Your task to perform on an android device: What is the recent news? Image 0: 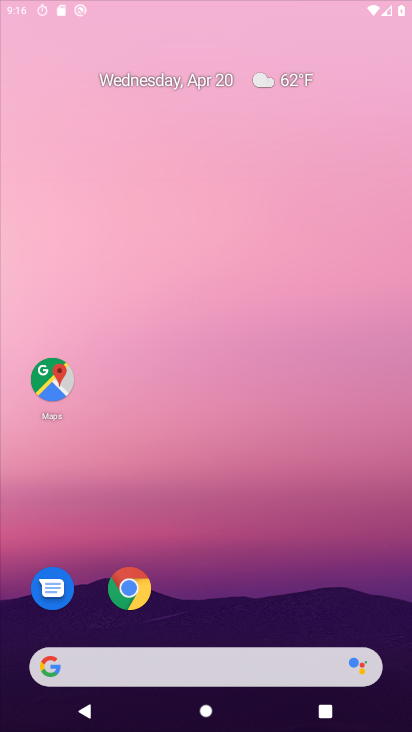
Step 0: drag from (261, 506) to (192, 0)
Your task to perform on an android device: What is the recent news? Image 1: 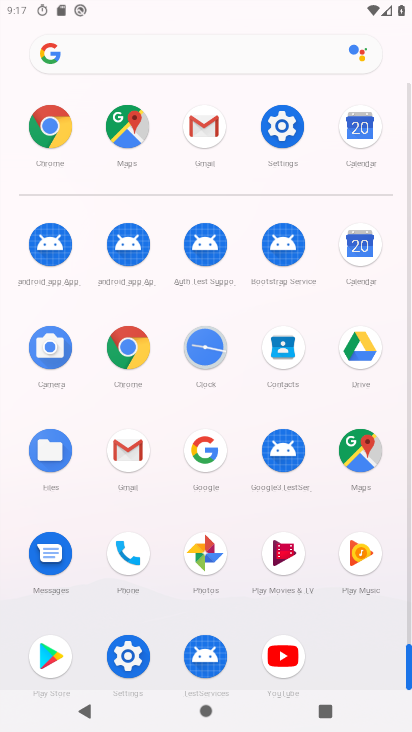
Step 1: drag from (4, 578) to (12, 339)
Your task to perform on an android device: What is the recent news? Image 2: 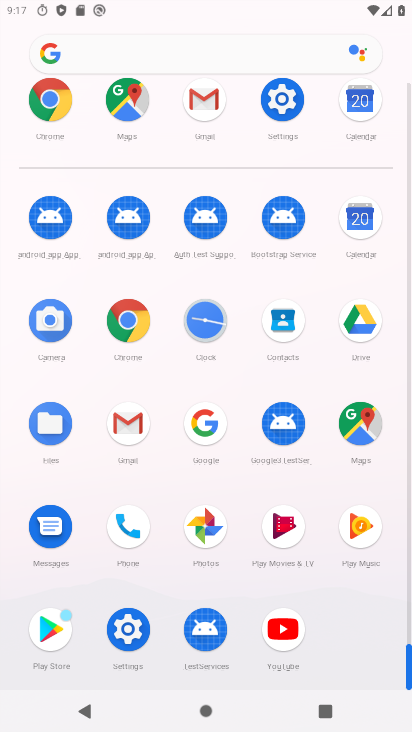
Step 2: click (193, 54)
Your task to perform on an android device: What is the recent news? Image 3: 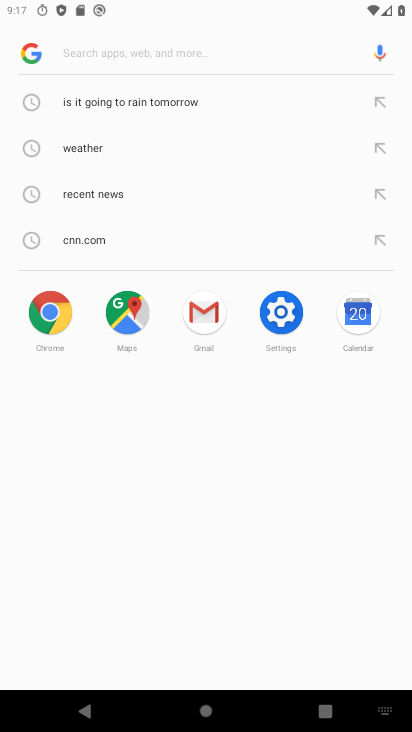
Step 3: click (96, 199)
Your task to perform on an android device: What is the recent news? Image 4: 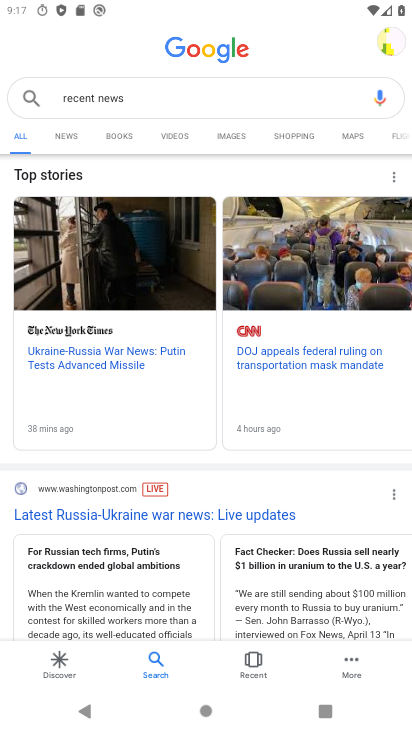
Step 4: task complete